Your task to perform on an android device: turn on priority inbox in the gmail app Image 0: 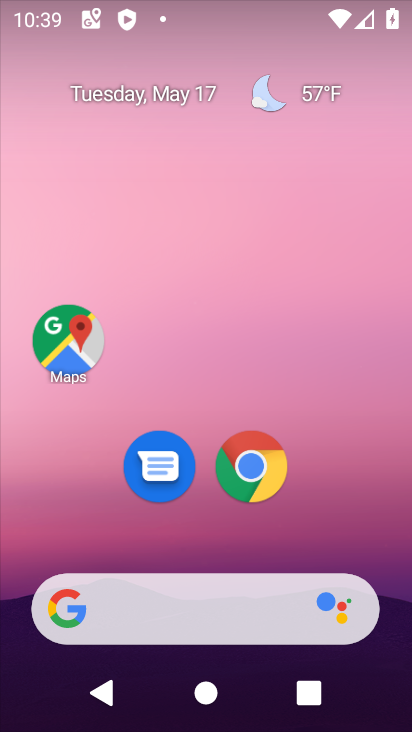
Step 0: drag from (220, 571) to (240, 51)
Your task to perform on an android device: turn on priority inbox in the gmail app Image 1: 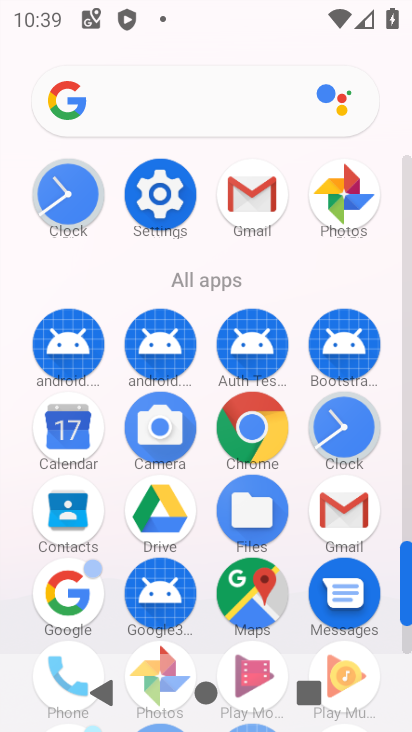
Step 1: click (257, 207)
Your task to perform on an android device: turn on priority inbox in the gmail app Image 2: 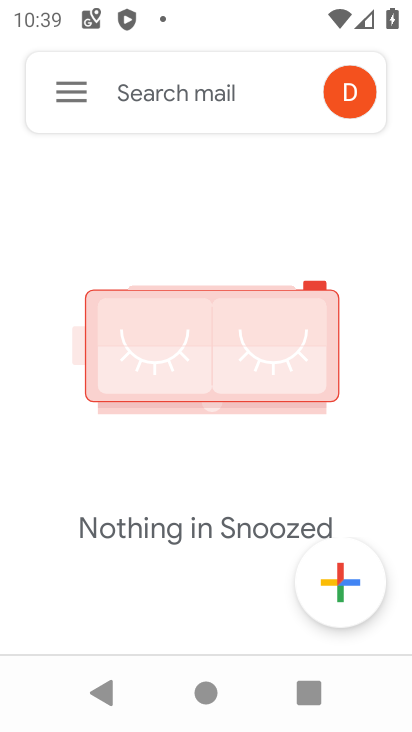
Step 2: click (73, 104)
Your task to perform on an android device: turn on priority inbox in the gmail app Image 3: 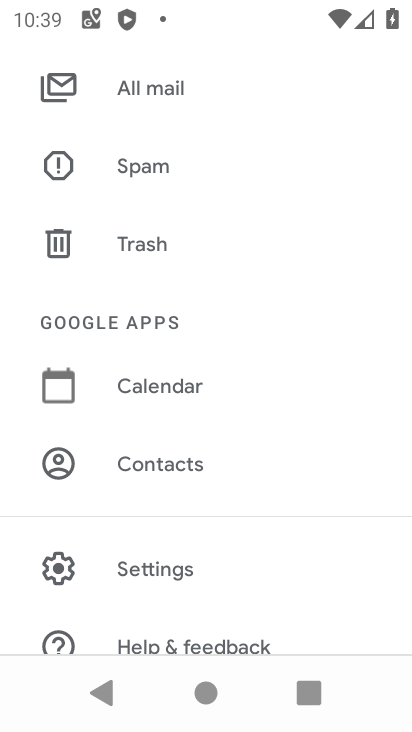
Step 3: click (126, 557)
Your task to perform on an android device: turn on priority inbox in the gmail app Image 4: 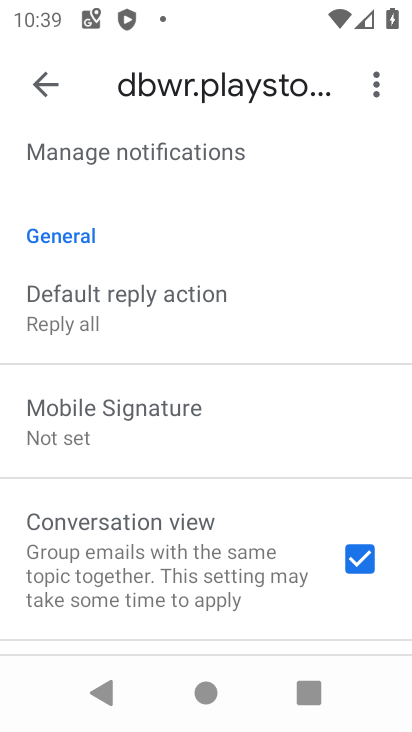
Step 4: drag from (196, 278) to (194, 593)
Your task to perform on an android device: turn on priority inbox in the gmail app Image 5: 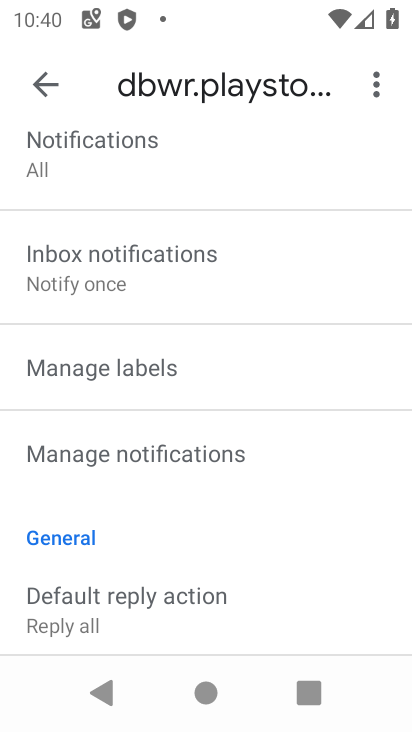
Step 5: drag from (187, 269) to (193, 589)
Your task to perform on an android device: turn on priority inbox in the gmail app Image 6: 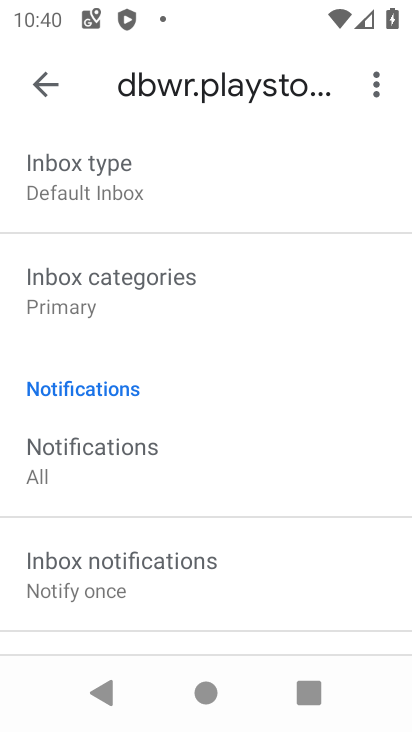
Step 6: drag from (130, 198) to (120, 649)
Your task to perform on an android device: turn on priority inbox in the gmail app Image 7: 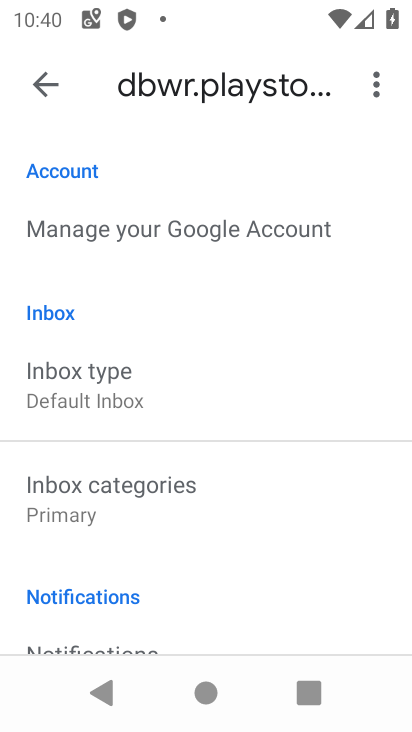
Step 7: click (81, 400)
Your task to perform on an android device: turn on priority inbox in the gmail app Image 8: 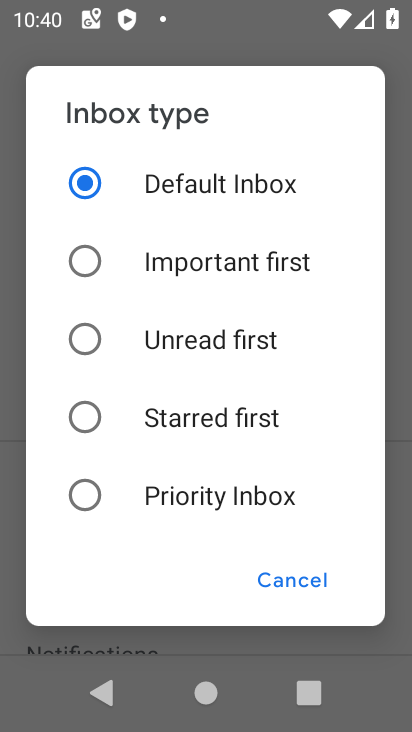
Step 8: click (191, 493)
Your task to perform on an android device: turn on priority inbox in the gmail app Image 9: 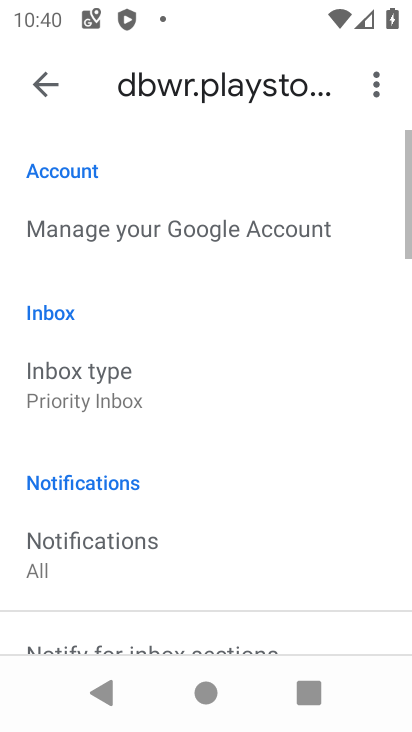
Step 9: task complete